Your task to perform on an android device: turn on location history Image 0: 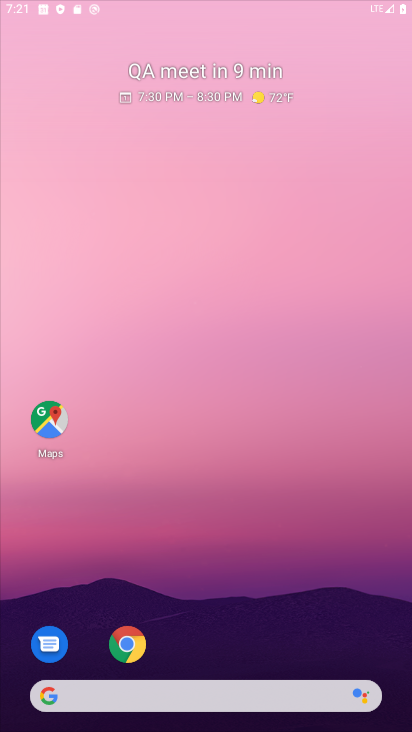
Step 0: click (332, 321)
Your task to perform on an android device: turn on location history Image 1: 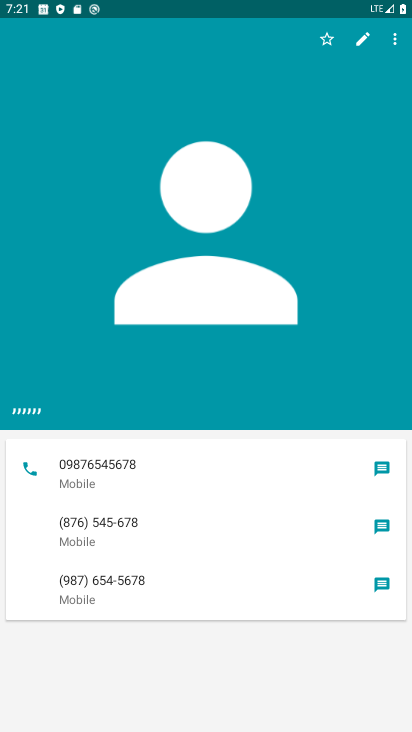
Step 1: press home button
Your task to perform on an android device: turn on location history Image 2: 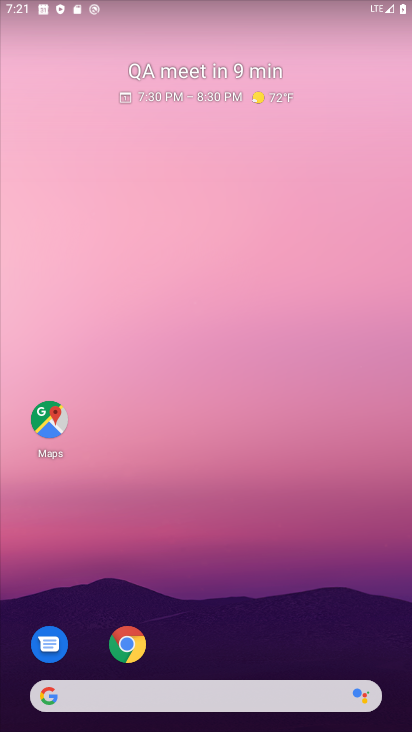
Step 2: drag from (211, 714) to (317, 221)
Your task to perform on an android device: turn on location history Image 3: 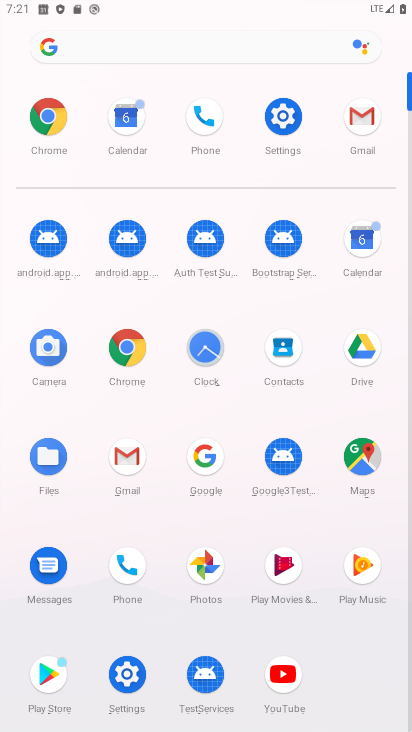
Step 3: click (293, 132)
Your task to perform on an android device: turn on location history Image 4: 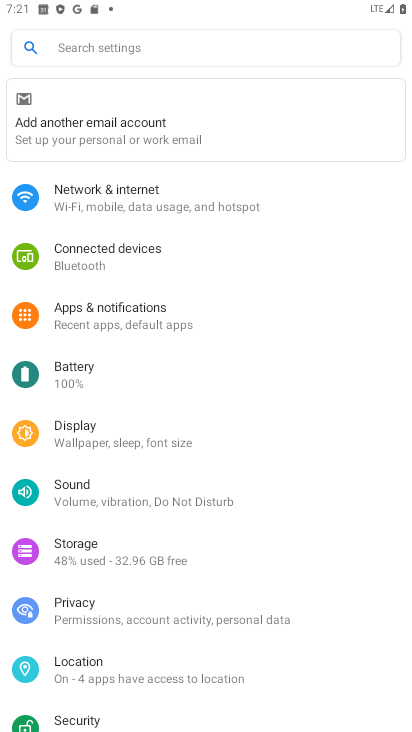
Step 4: click (109, 48)
Your task to perform on an android device: turn on location history Image 5: 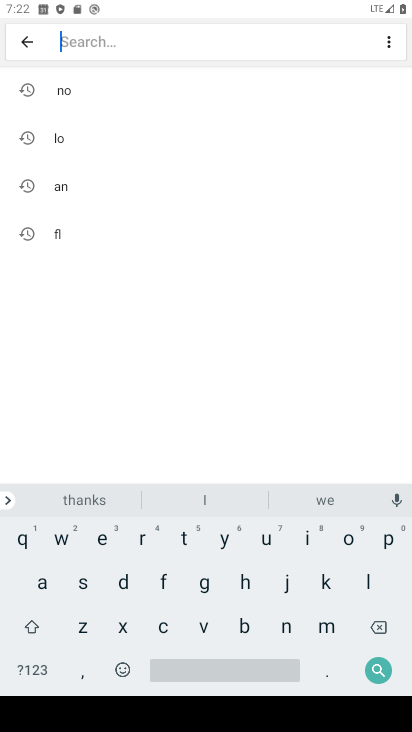
Step 5: click (75, 136)
Your task to perform on an android device: turn on location history Image 6: 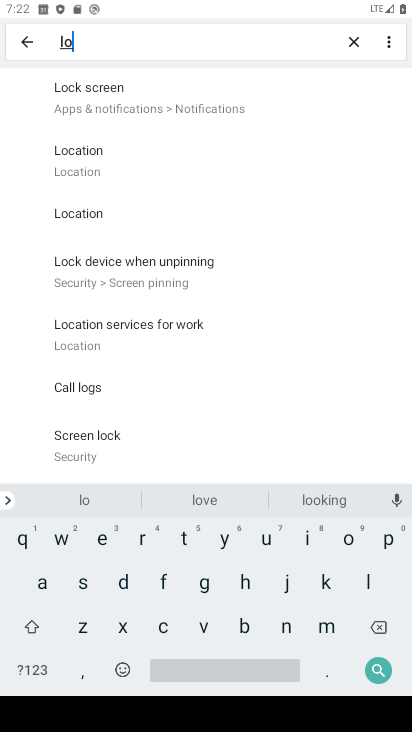
Step 6: click (128, 164)
Your task to perform on an android device: turn on location history Image 7: 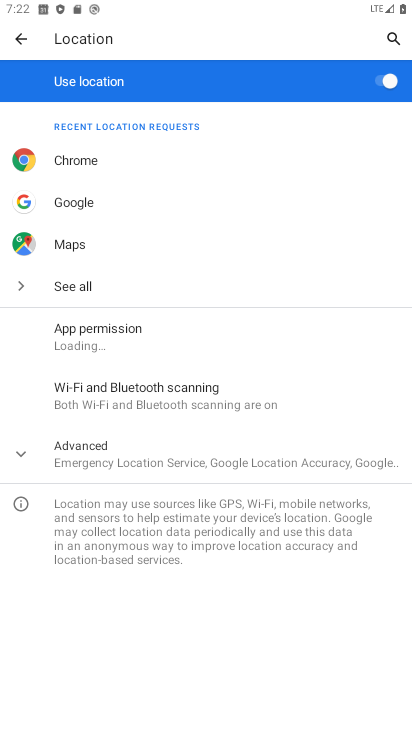
Step 7: click (68, 453)
Your task to perform on an android device: turn on location history Image 8: 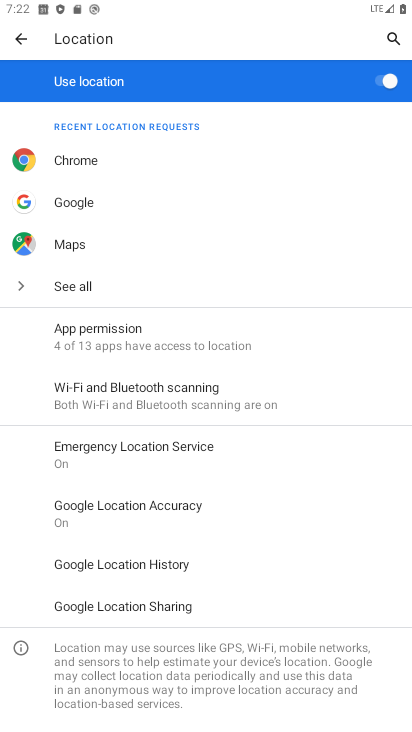
Step 8: click (151, 564)
Your task to perform on an android device: turn on location history Image 9: 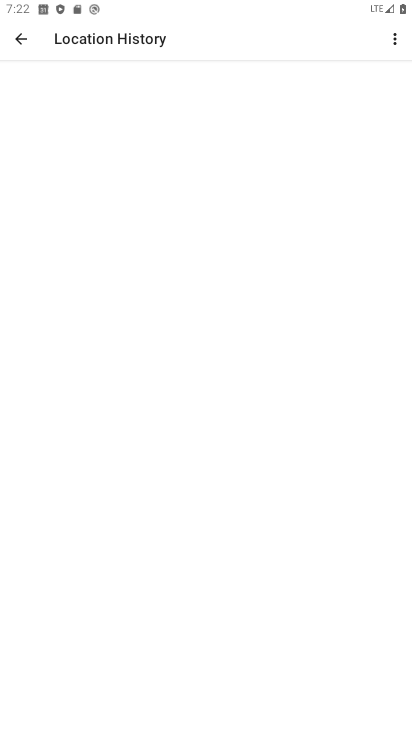
Step 9: task complete